Your task to perform on an android device: find photos in the google photos app Image 0: 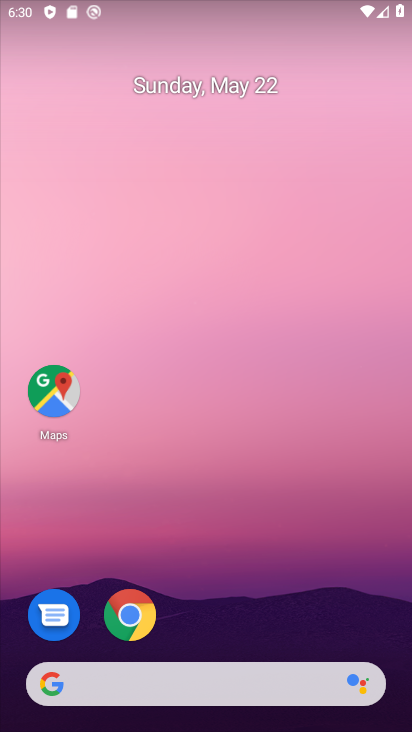
Step 0: drag from (236, 490) to (156, 102)
Your task to perform on an android device: find photos in the google photos app Image 1: 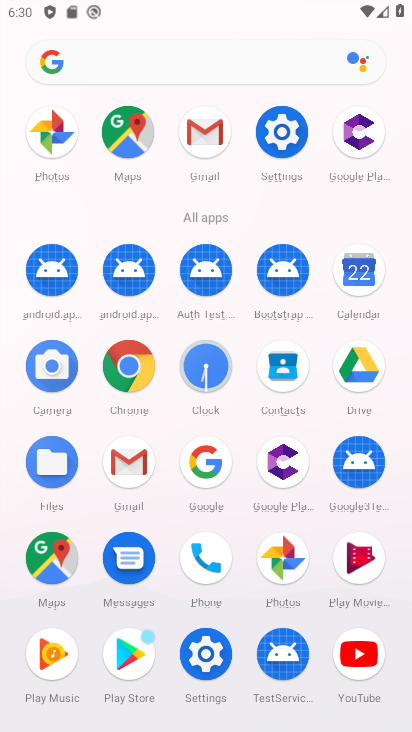
Step 1: click (55, 131)
Your task to perform on an android device: find photos in the google photos app Image 2: 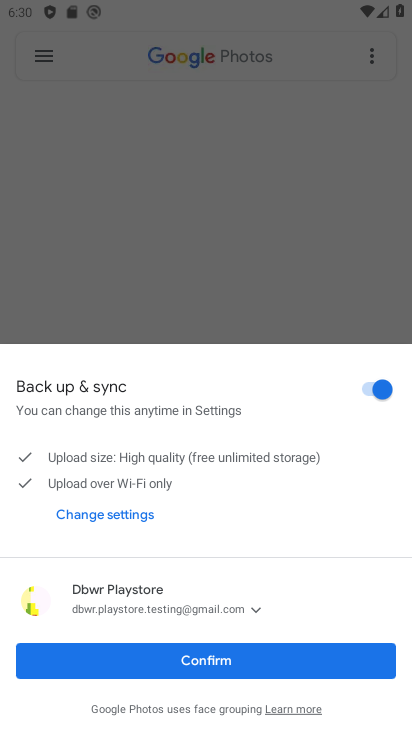
Step 2: click (212, 652)
Your task to perform on an android device: find photos in the google photos app Image 3: 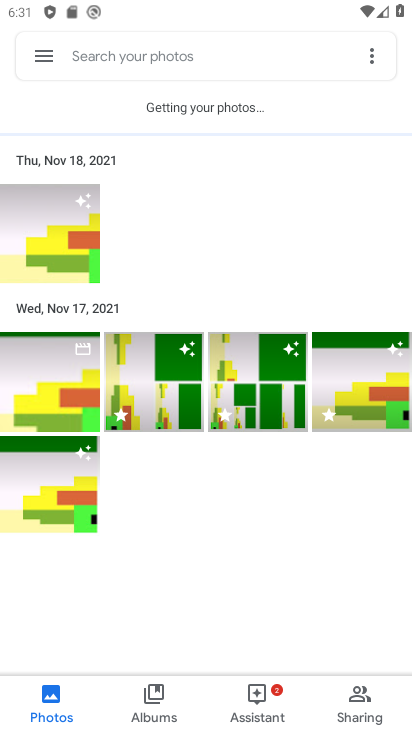
Step 3: click (130, 53)
Your task to perform on an android device: find photos in the google photos app Image 4: 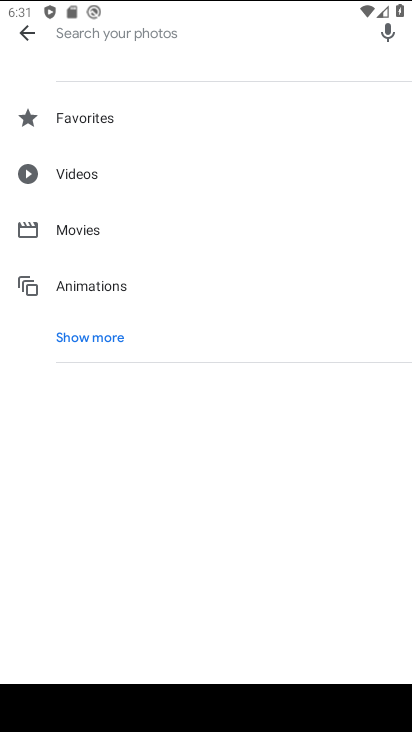
Step 4: task complete